Your task to perform on an android device: delete the emails in spam in the gmail app Image 0: 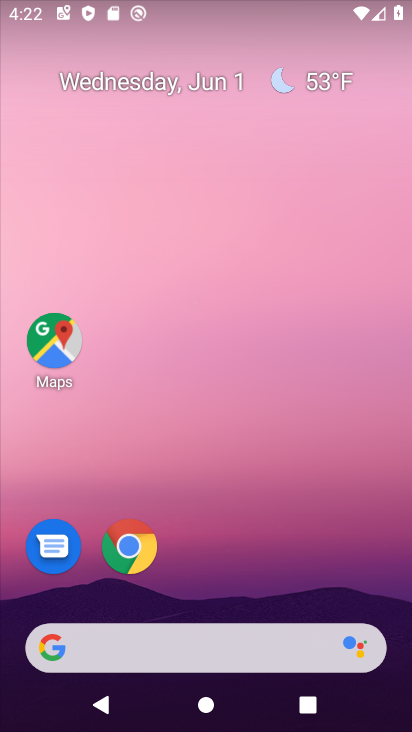
Step 0: drag from (233, 521) to (155, 81)
Your task to perform on an android device: delete the emails in spam in the gmail app Image 1: 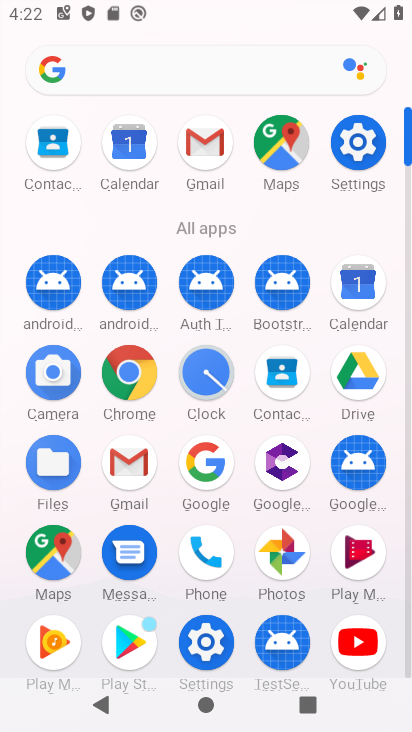
Step 1: click (202, 146)
Your task to perform on an android device: delete the emails in spam in the gmail app Image 2: 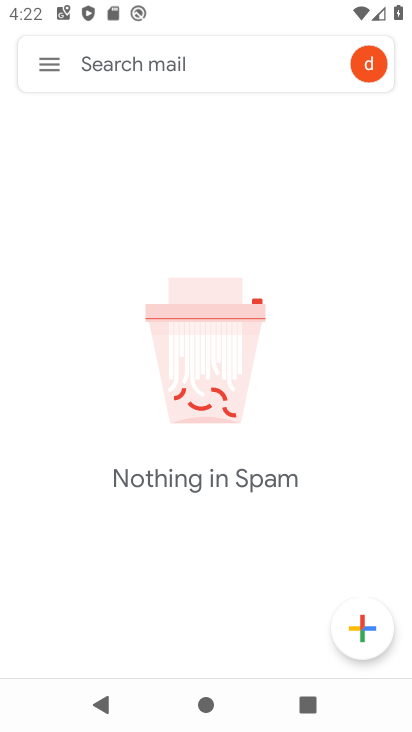
Step 2: click (49, 59)
Your task to perform on an android device: delete the emails in spam in the gmail app Image 3: 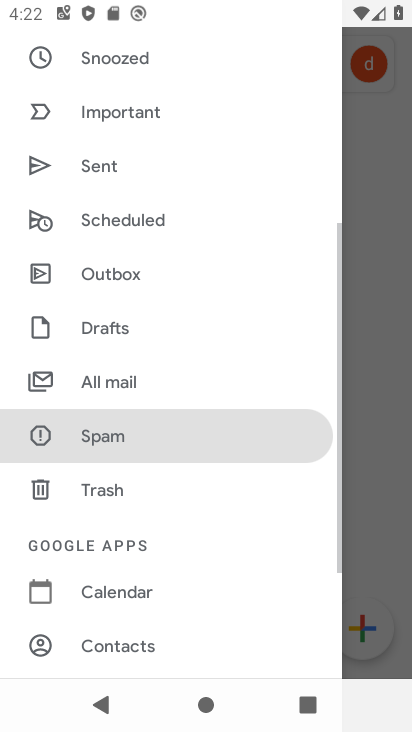
Step 3: task complete